Your task to perform on an android device: open app "Fetch Rewards" Image 0: 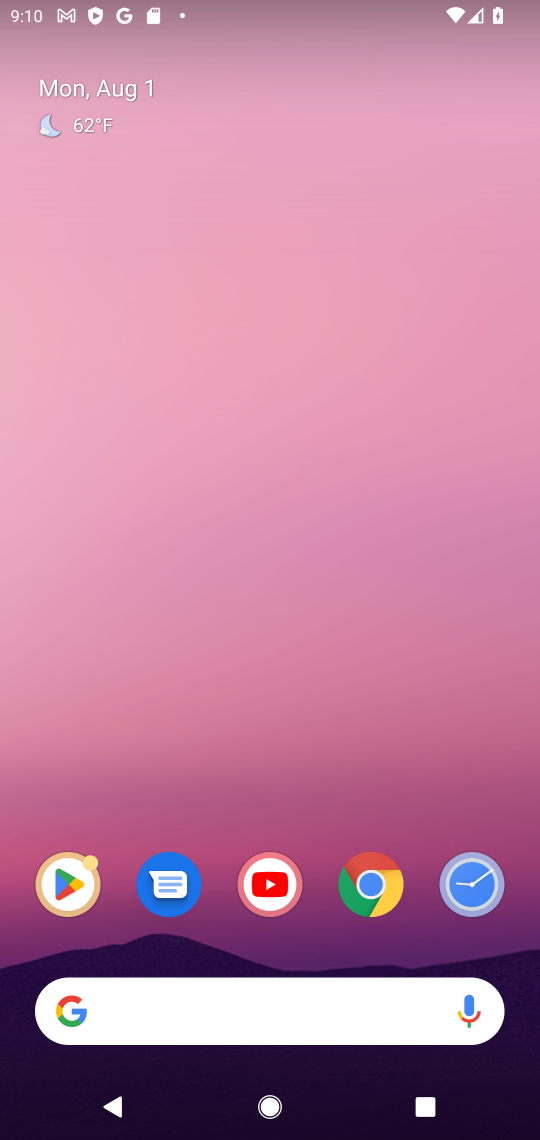
Step 0: click (75, 883)
Your task to perform on an android device: open app "Fetch Rewards" Image 1: 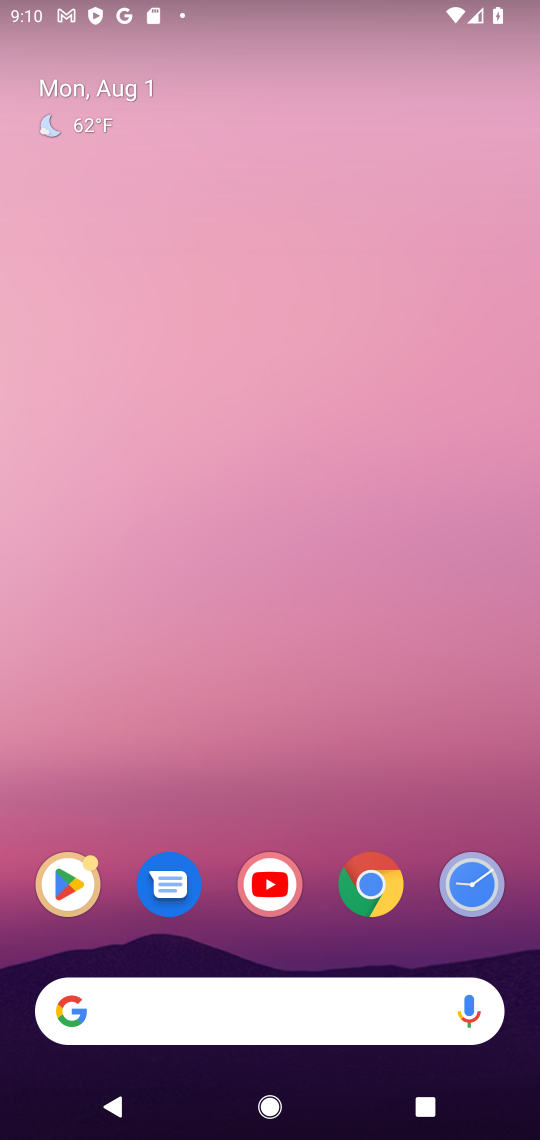
Step 1: click (75, 883)
Your task to perform on an android device: open app "Fetch Rewards" Image 2: 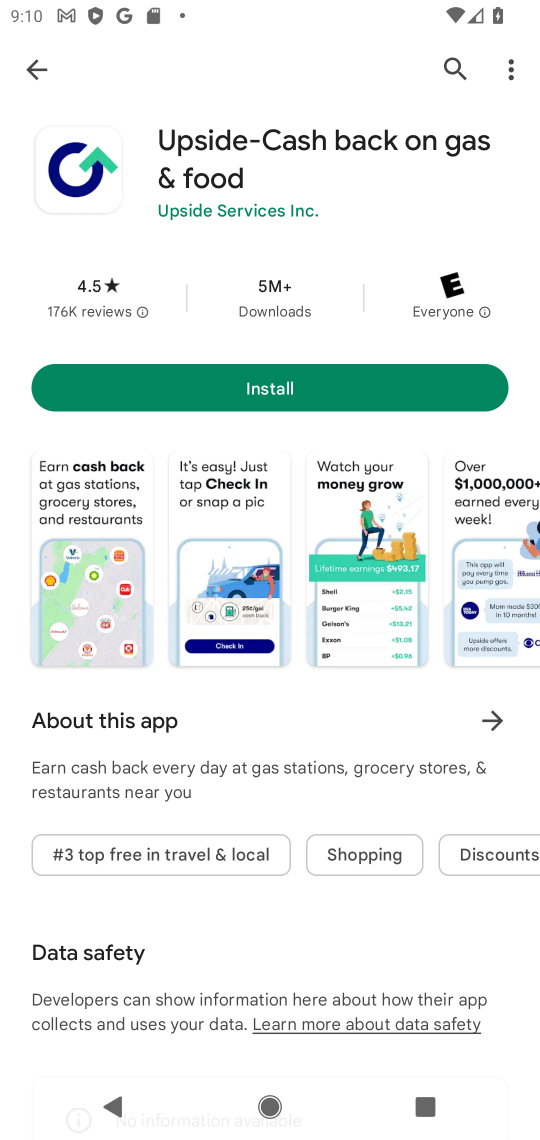
Step 2: click (433, 61)
Your task to perform on an android device: open app "Fetch Rewards" Image 3: 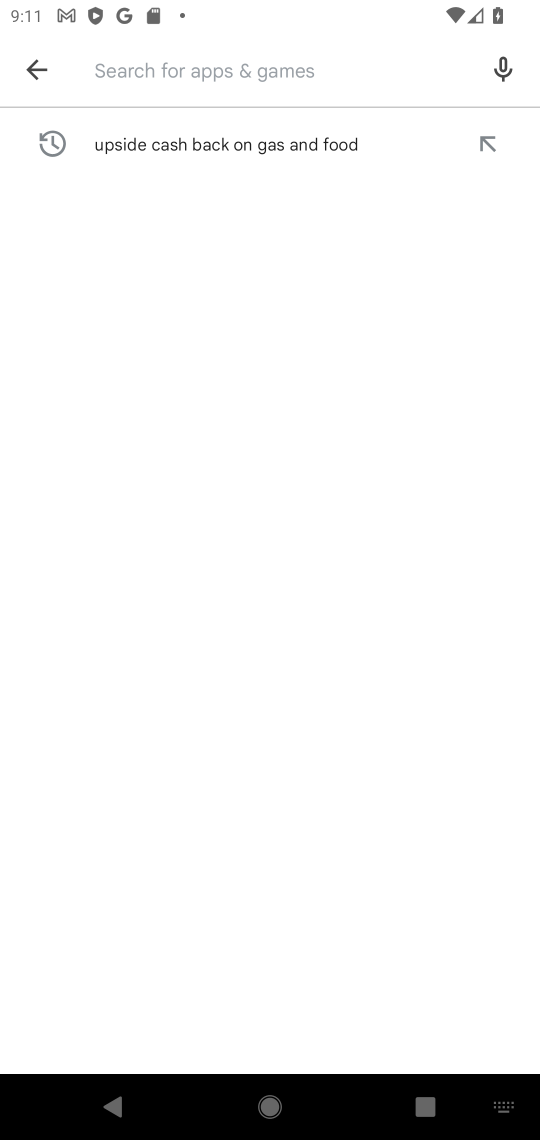
Step 3: type "fetch reward"
Your task to perform on an android device: open app "Fetch Rewards" Image 4: 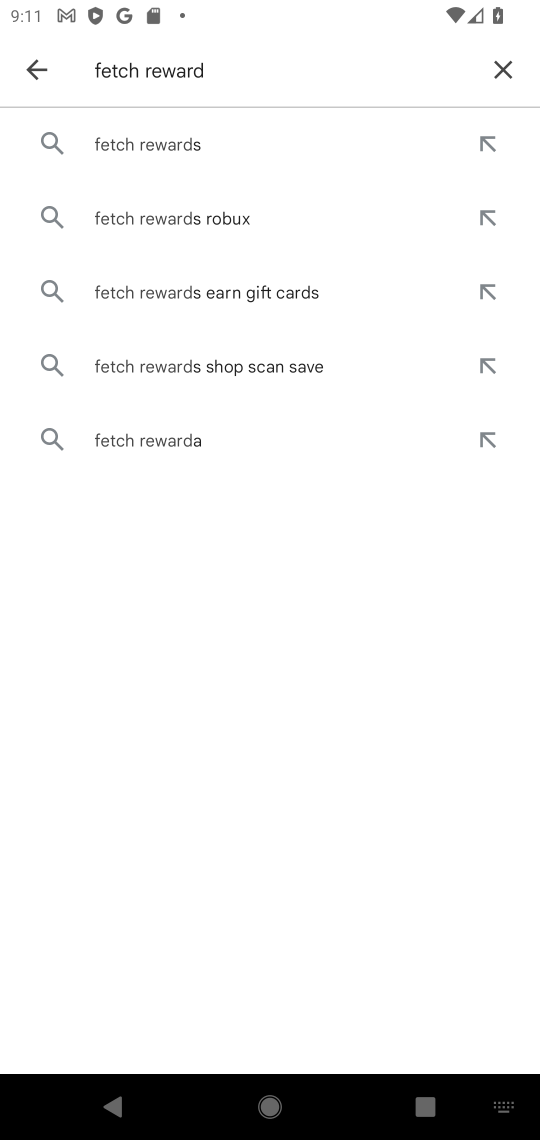
Step 4: click (245, 161)
Your task to perform on an android device: open app "Fetch Rewards" Image 5: 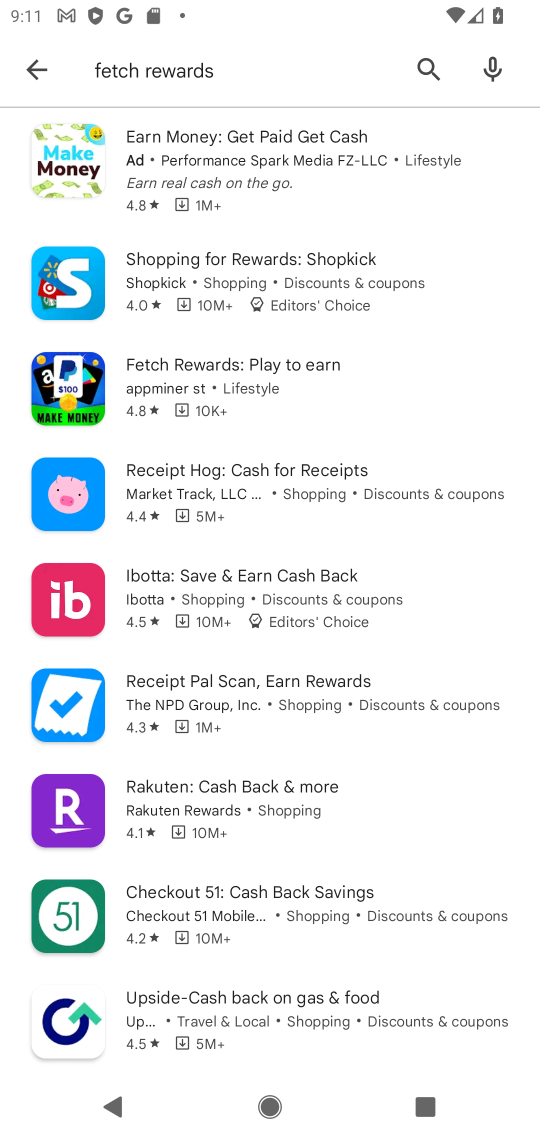
Step 5: task complete